Your task to perform on an android device: turn off picture-in-picture Image 0: 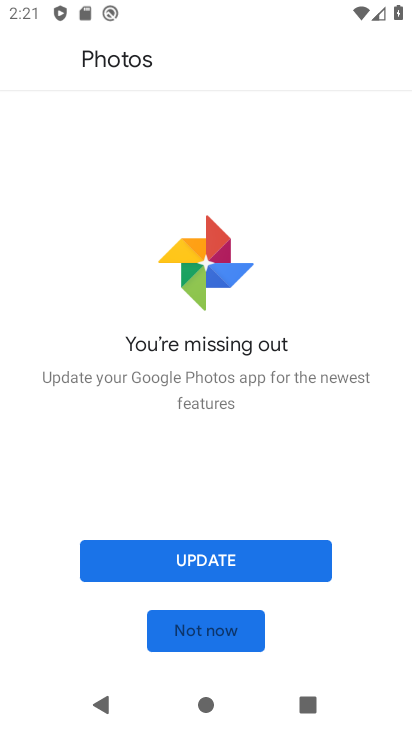
Step 0: press home button
Your task to perform on an android device: turn off picture-in-picture Image 1: 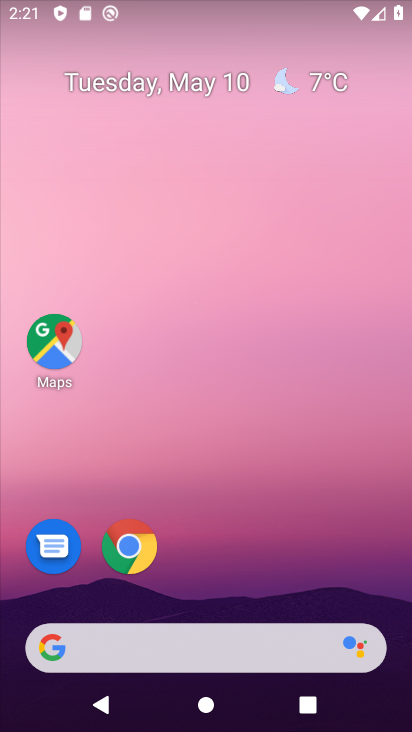
Step 1: drag from (217, 425) to (229, 103)
Your task to perform on an android device: turn off picture-in-picture Image 2: 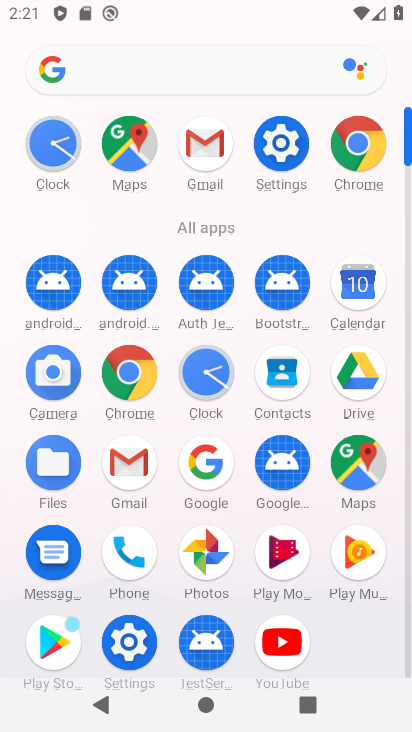
Step 2: click (260, 148)
Your task to perform on an android device: turn off picture-in-picture Image 3: 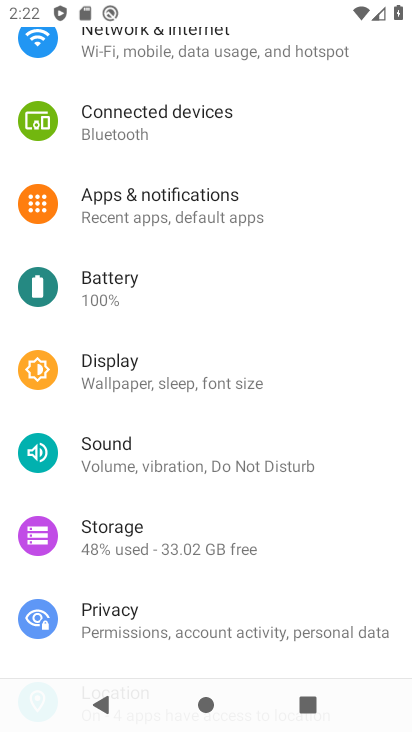
Step 3: click (201, 218)
Your task to perform on an android device: turn off picture-in-picture Image 4: 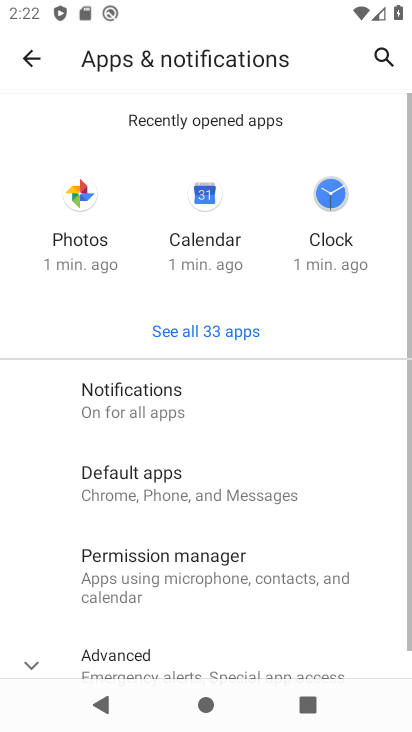
Step 4: drag from (205, 571) to (243, 308)
Your task to perform on an android device: turn off picture-in-picture Image 5: 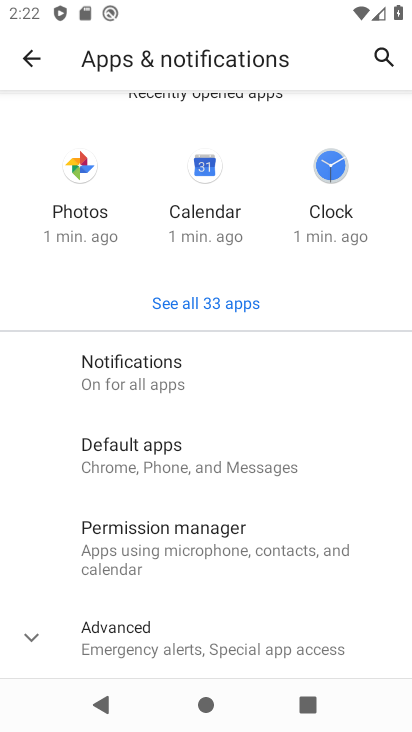
Step 5: drag from (207, 584) to (235, 415)
Your task to perform on an android device: turn off picture-in-picture Image 6: 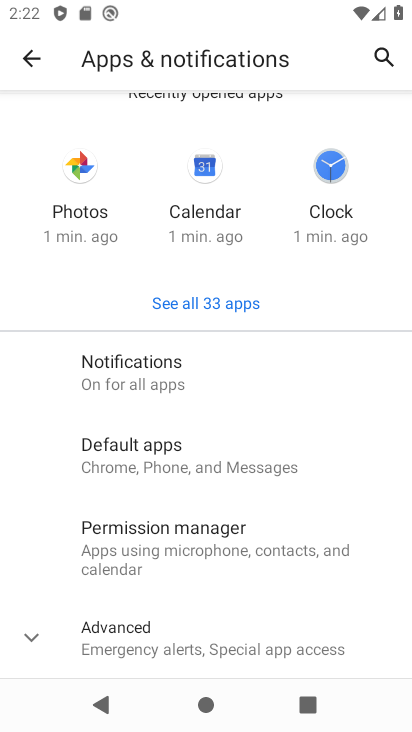
Step 6: click (242, 641)
Your task to perform on an android device: turn off picture-in-picture Image 7: 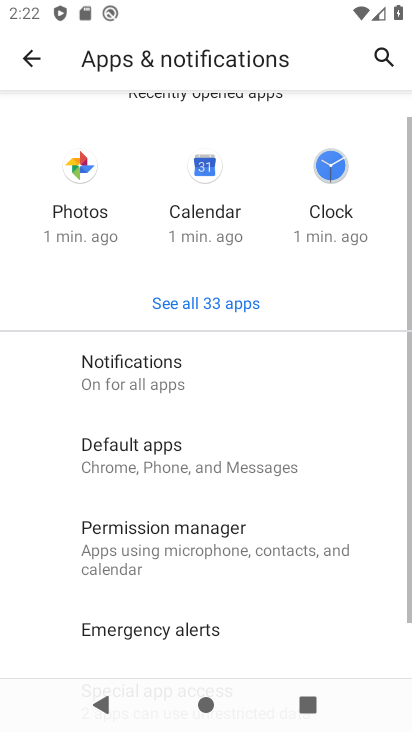
Step 7: drag from (242, 641) to (255, 347)
Your task to perform on an android device: turn off picture-in-picture Image 8: 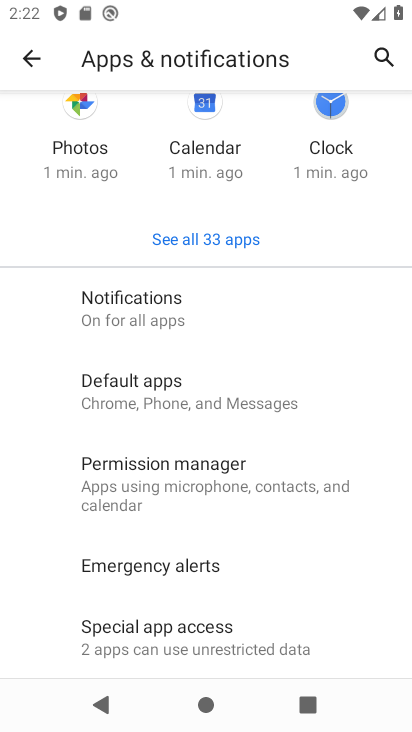
Step 8: click (239, 621)
Your task to perform on an android device: turn off picture-in-picture Image 9: 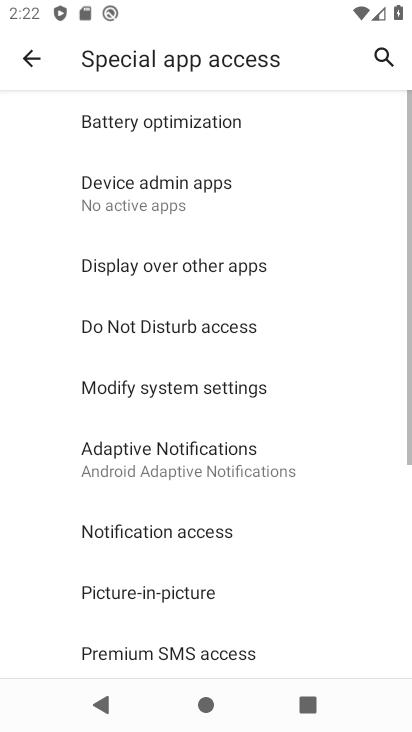
Step 9: click (234, 595)
Your task to perform on an android device: turn off picture-in-picture Image 10: 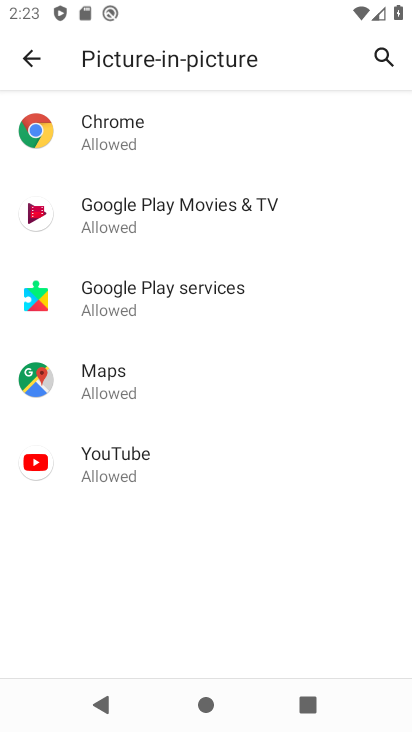
Step 10: click (171, 132)
Your task to perform on an android device: turn off picture-in-picture Image 11: 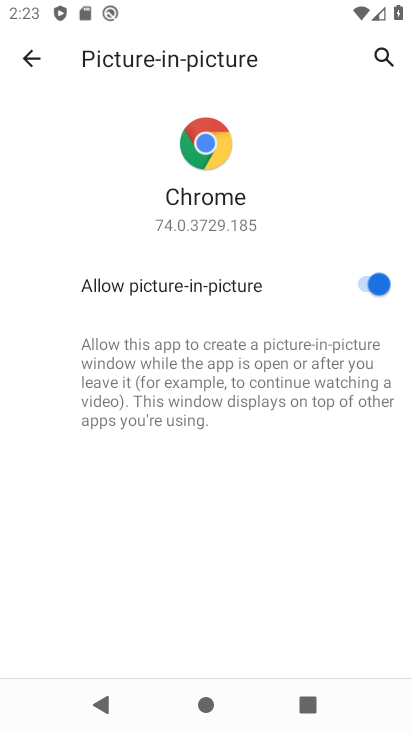
Step 11: click (371, 287)
Your task to perform on an android device: turn off picture-in-picture Image 12: 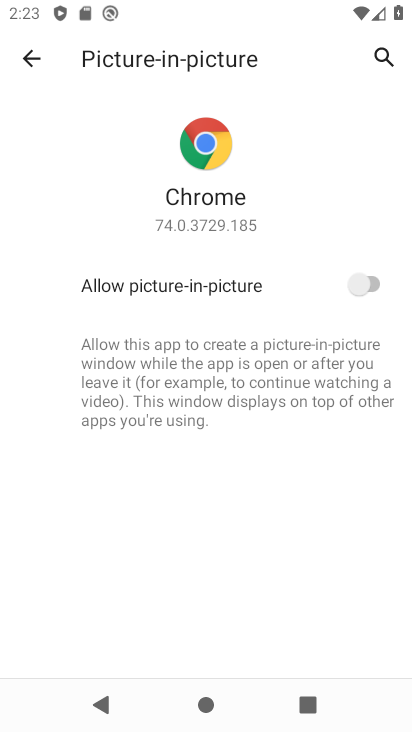
Step 12: task complete